Your task to perform on an android device: Search for the best rated electric lawnmower on Home Depot Image 0: 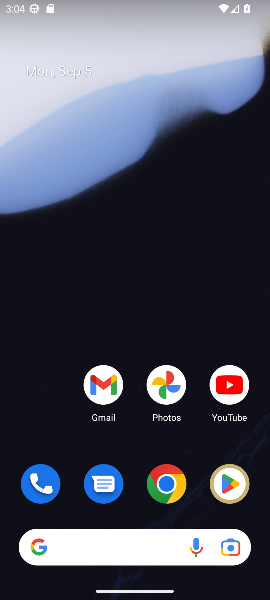
Step 0: click (167, 487)
Your task to perform on an android device: Search for the best rated electric lawnmower on Home Depot Image 1: 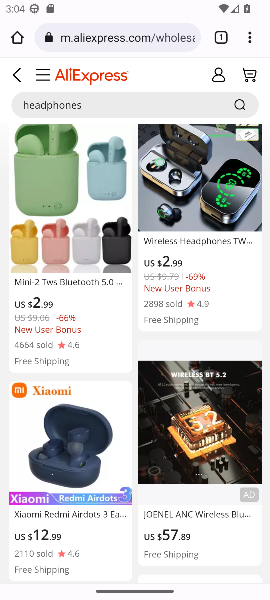
Step 1: click (158, 38)
Your task to perform on an android device: Search for the best rated electric lawnmower on Home Depot Image 2: 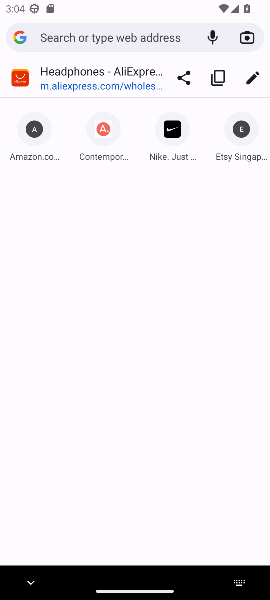
Step 2: type "Home Depot"
Your task to perform on an android device: Search for the best rated electric lawnmower on Home Depot Image 3: 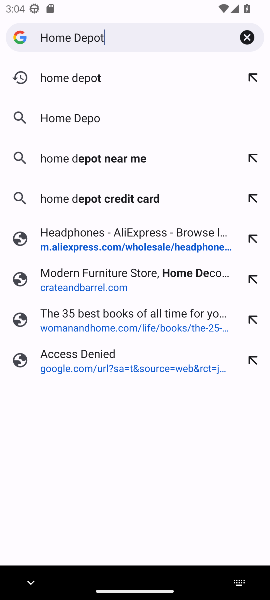
Step 3: press enter
Your task to perform on an android device: Search for the best rated electric lawnmower on Home Depot Image 4: 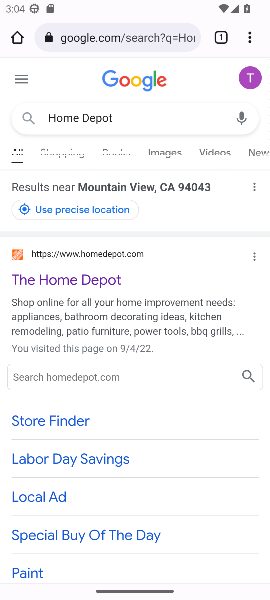
Step 4: click (91, 280)
Your task to perform on an android device: Search for the best rated electric lawnmower on Home Depot Image 5: 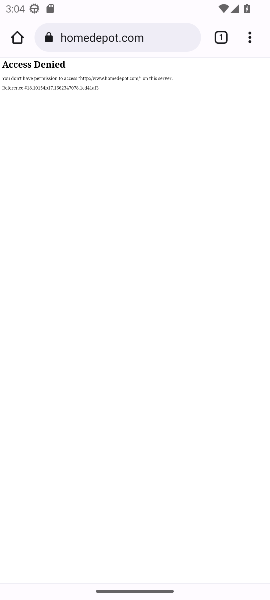
Step 5: task complete